Your task to perform on an android device: turn on the 24-hour format for clock Image 0: 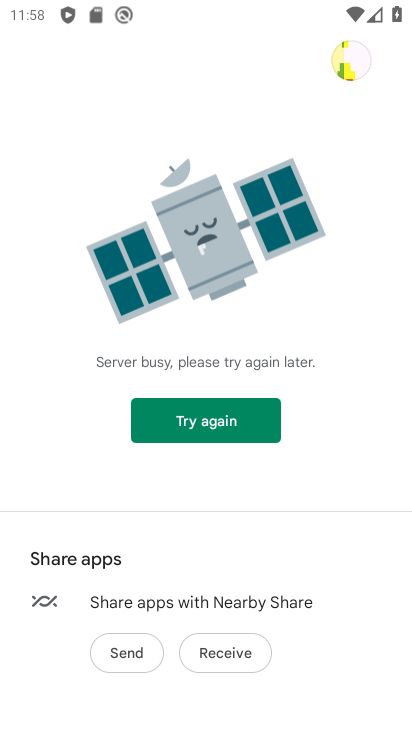
Step 0: press home button
Your task to perform on an android device: turn on the 24-hour format for clock Image 1: 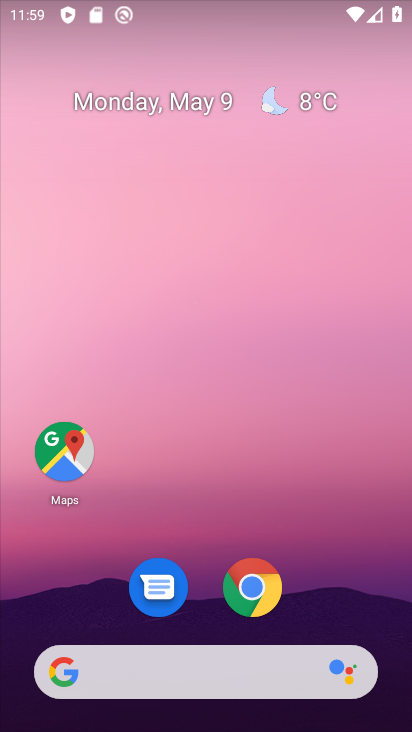
Step 1: drag from (400, 680) to (391, 410)
Your task to perform on an android device: turn on the 24-hour format for clock Image 2: 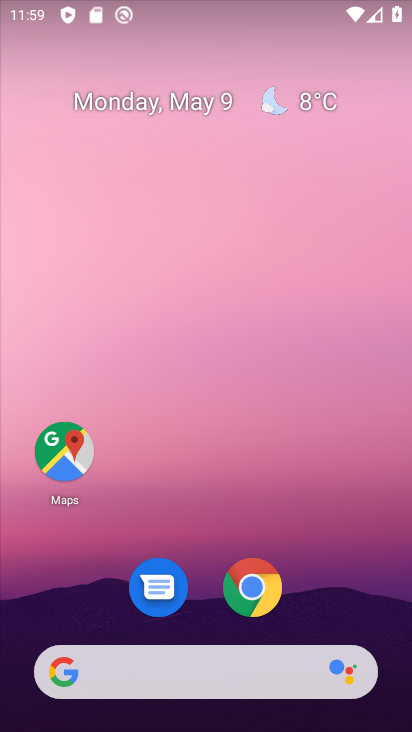
Step 2: drag from (397, 686) to (410, 398)
Your task to perform on an android device: turn on the 24-hour format for clock Image 3: 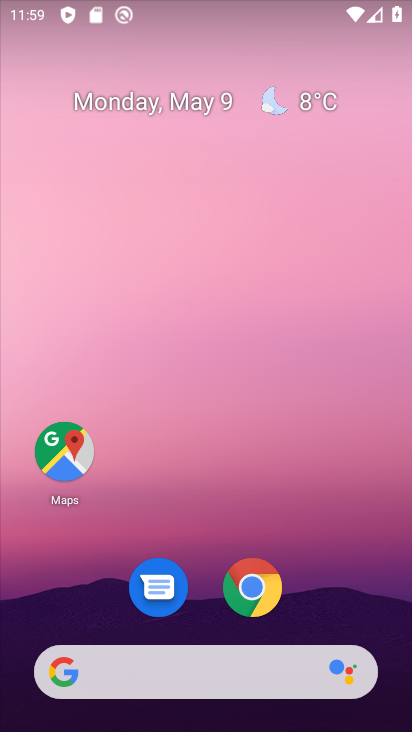
Step 3: drag from (394, 621) to (384, 285)
Your task to perform on an android device: turn on the 24-hour format for clock Image 4: 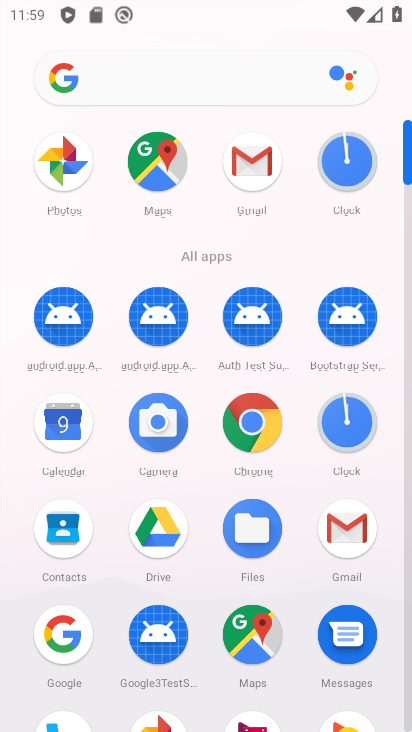
Step 4: click (350, 413)
Your task to perform on an android device: turn on the 24-hour format for clock Image 5: 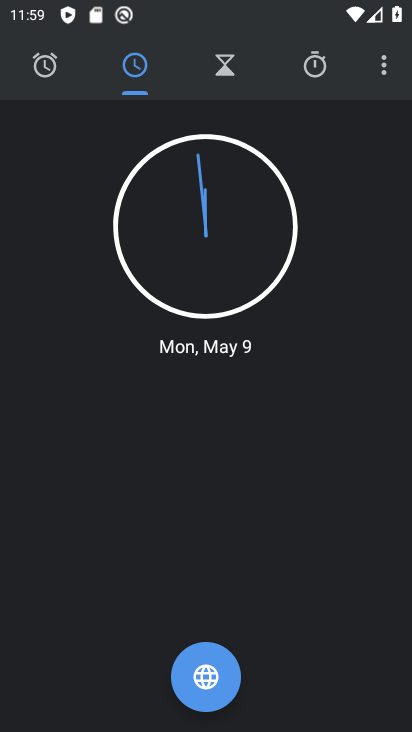
Step 5: click (384, 67)
Your task to perform on an android device: turn on the 24-hour format for clock Image 6: 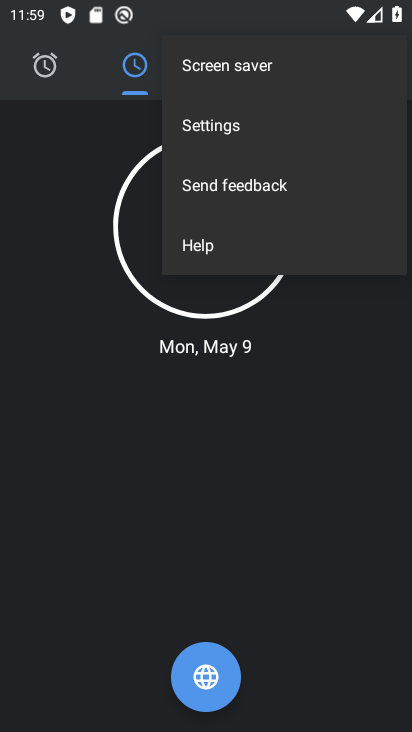
Step 6: click (230, 125)
Your task to perform on an android device: turn on the 24-hour format for clock Image 7: 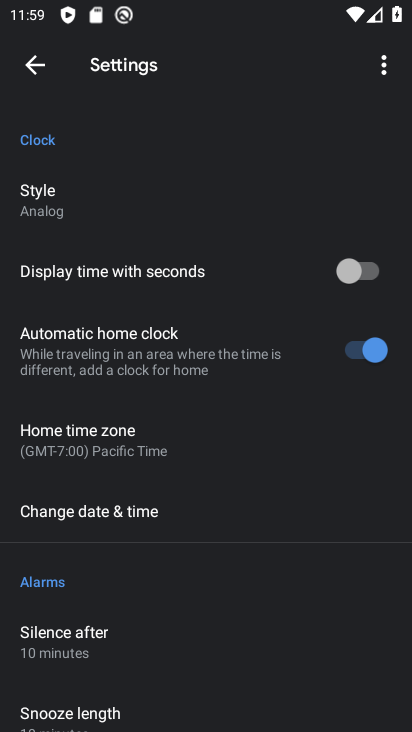
Step 7: click (98, 510)
Your task to perform on an android device: turn on the 24-hour format for clock Image 8: 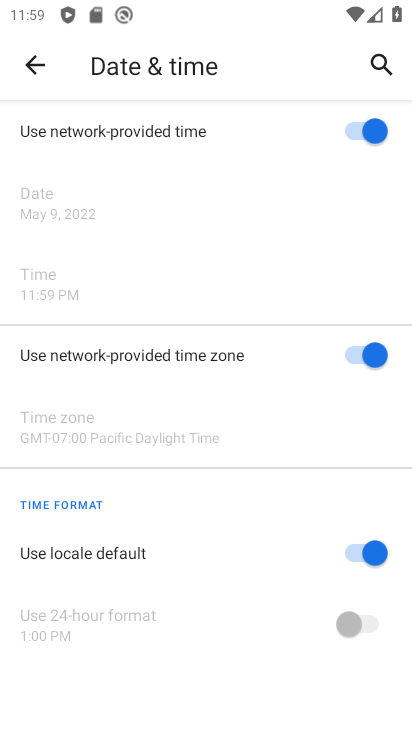
Step 8: click (347, 556)
Your task to perform on an android device: turn on the 24-hour format for clock Image 9: 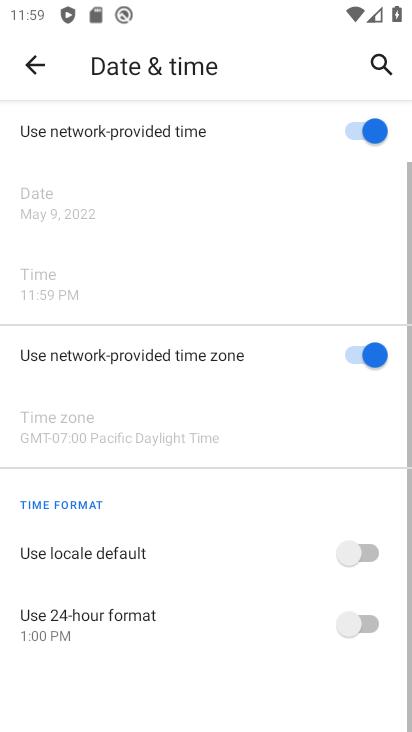
Step 9: click (366, 628)
Your task to perform on an android device: turn on the 24-hour format for clock Image 10: 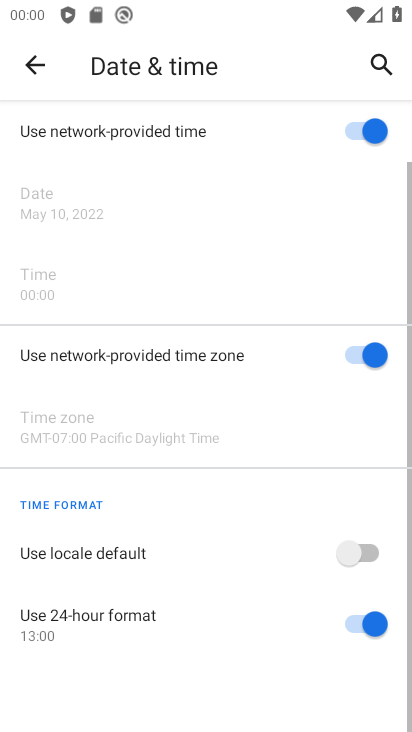
Step 10: task complete